Your task to perform on an android device: Open notification settings Image 0: 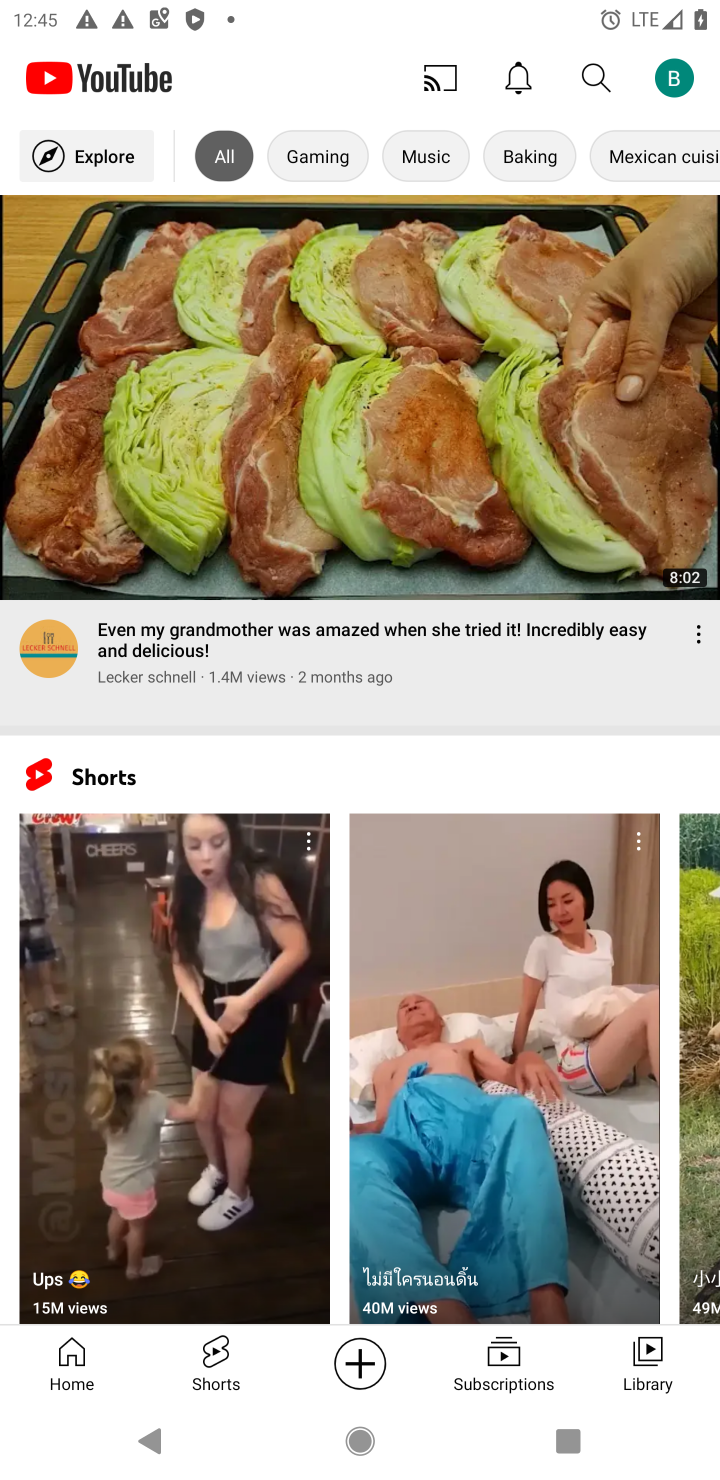
Step 0: press home button
Your task to perform on an android device: Open notification settings Image 1: 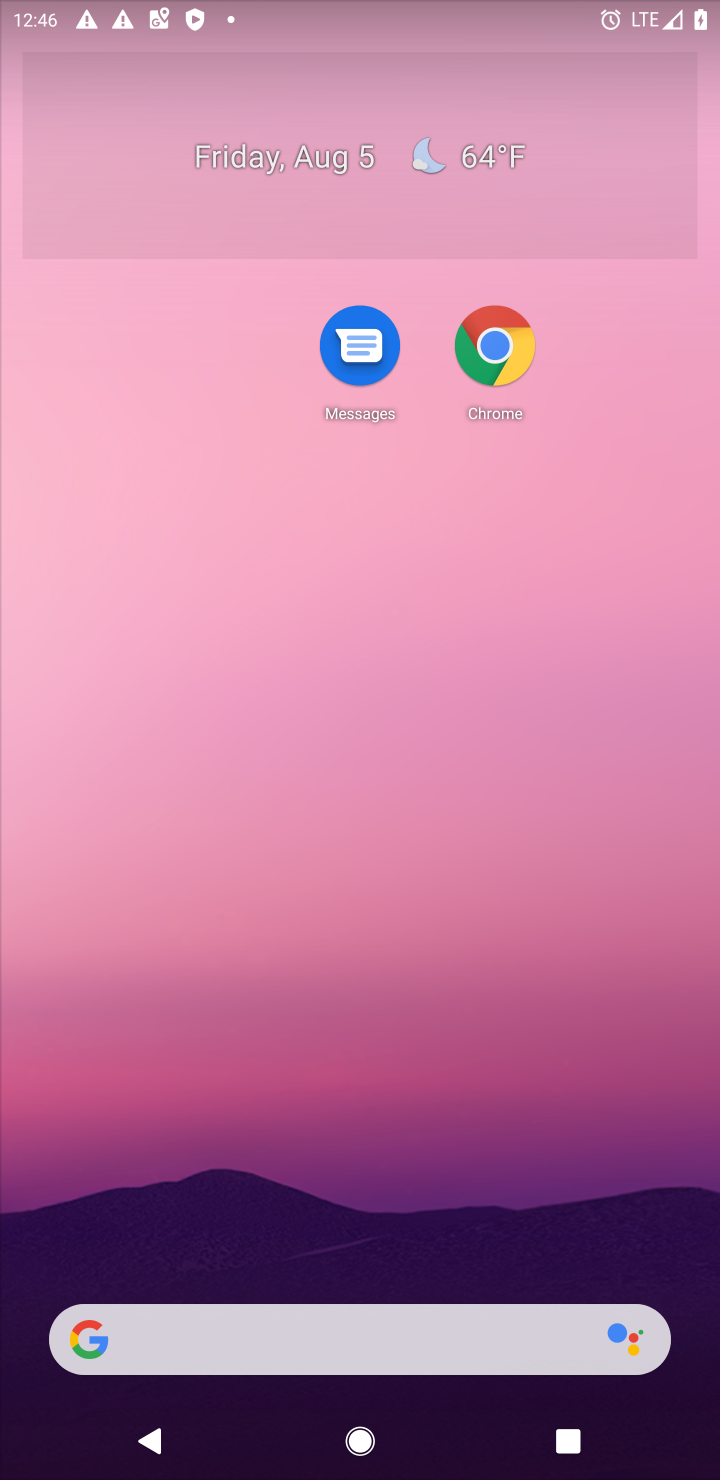
Step 1: drag from (469, 1049) to (426, 48)
Your task to perform on an android device: Open notification settings Image 2: 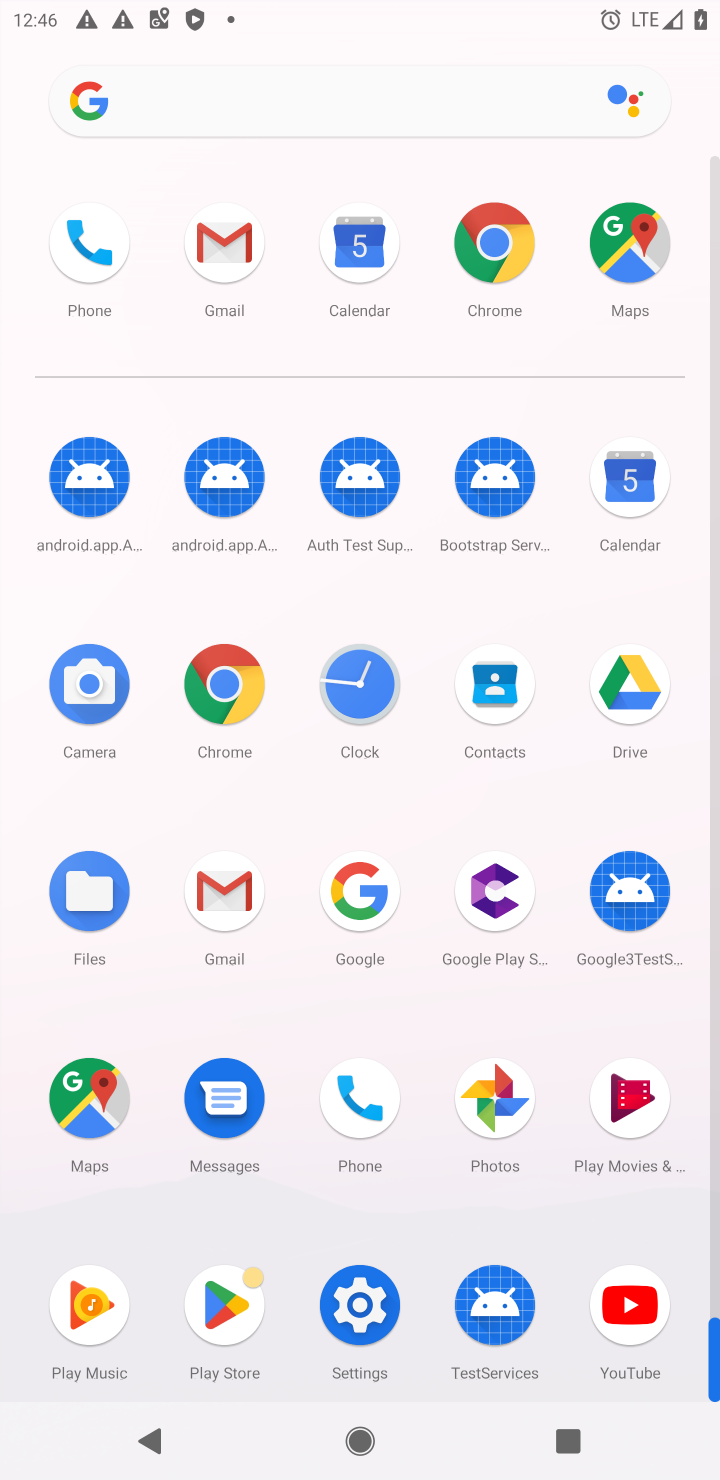
Step 2: click (356, 1311)
Your task to perform on an android device: Open notification settings Image 3: 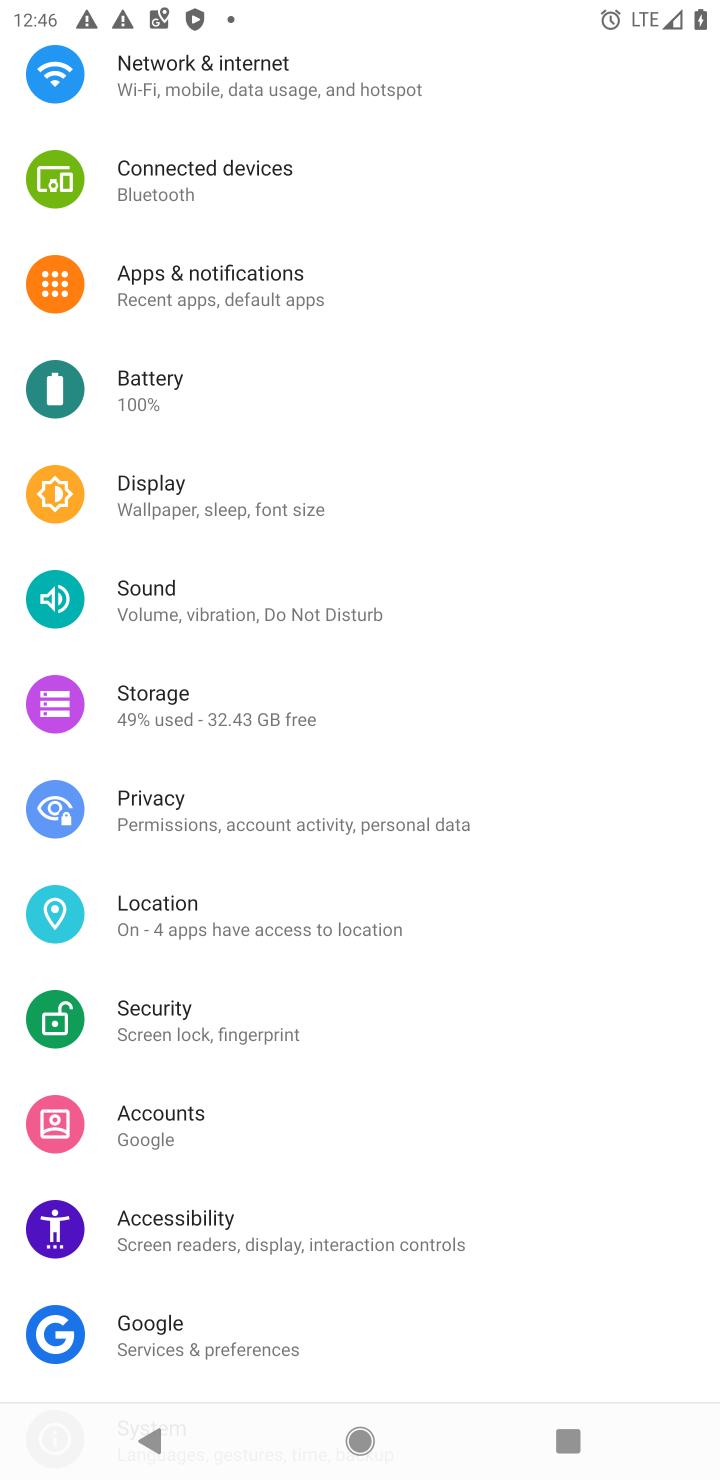
Step 3: click (276, 299)
Your task to perform on an android device: Open notification settings Image 4: 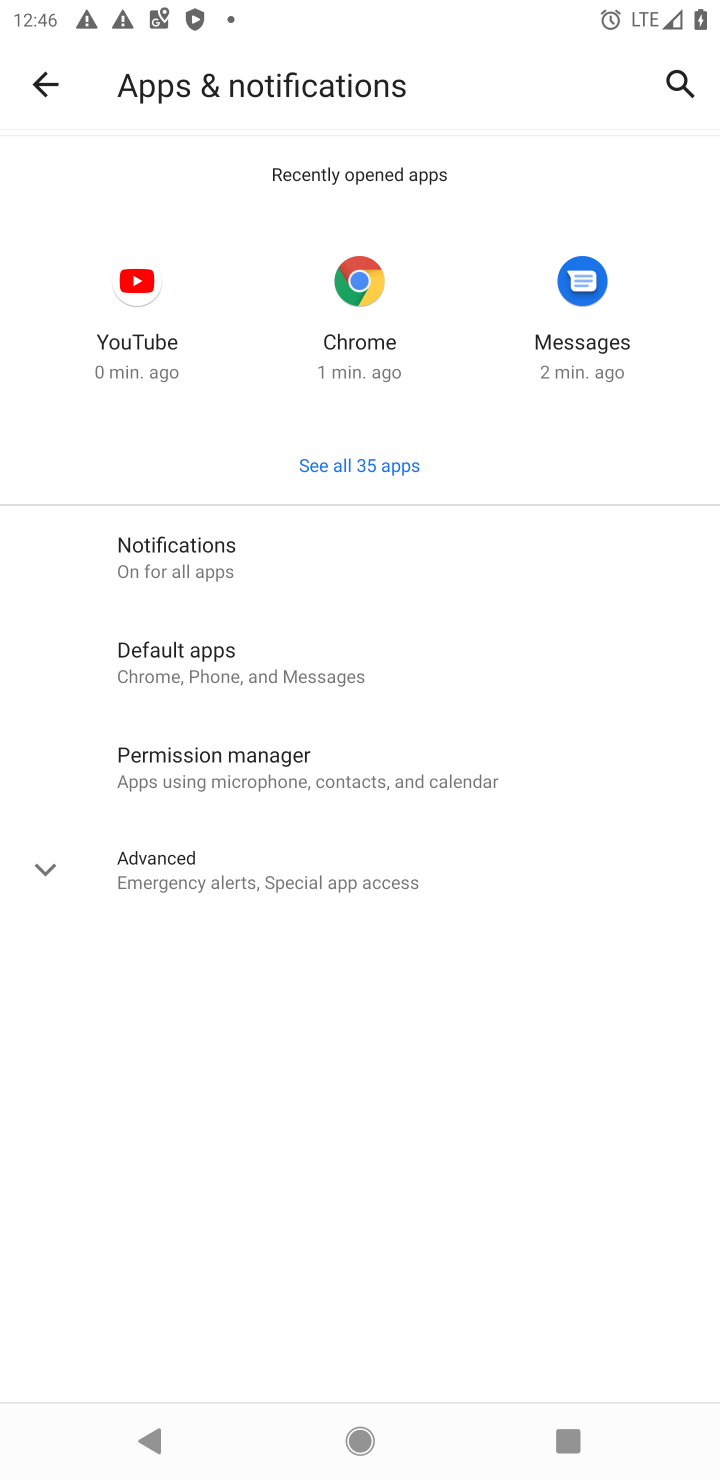
Step 4: click (174, 552)
Your task to perform on an android device: Open notification settings Image 5: 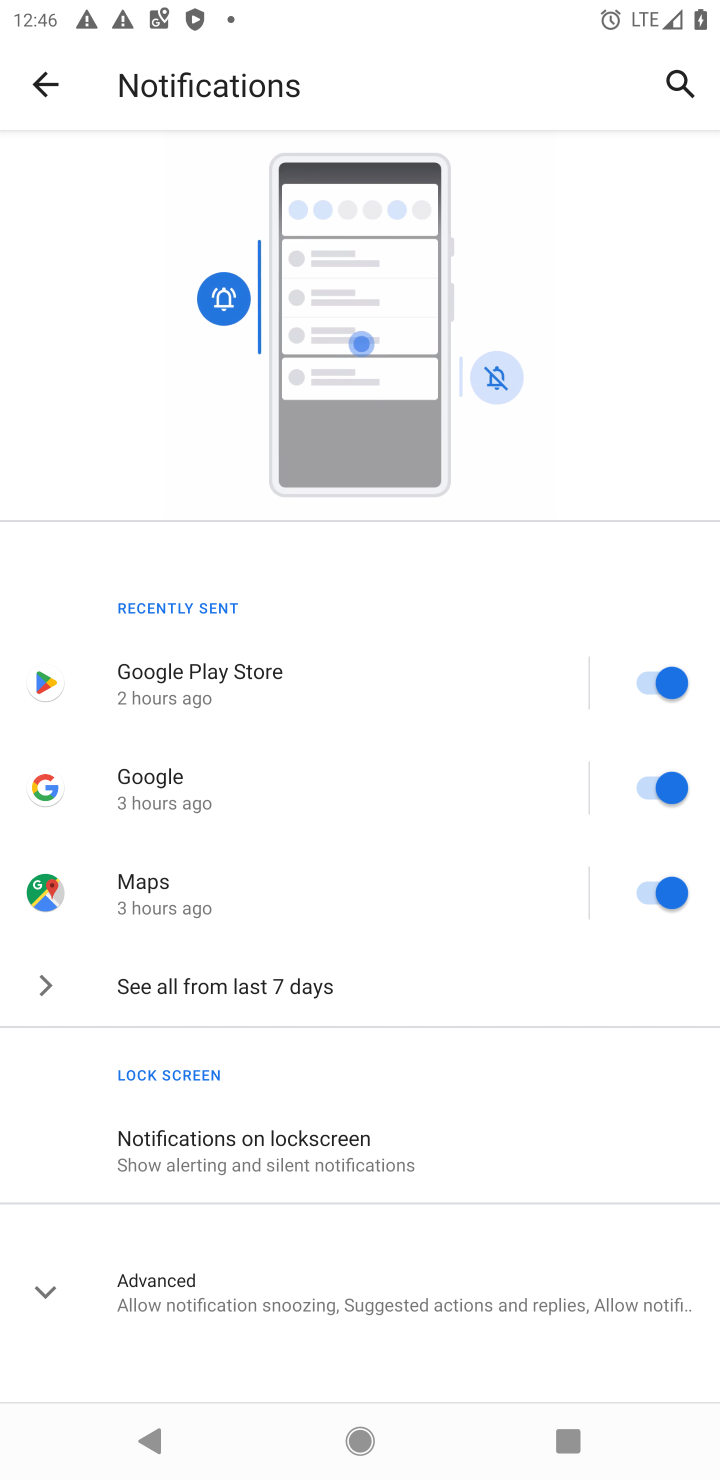
Step 5: click (248, 528)
Your task to perform on an android device: Open notification settings Image 6: 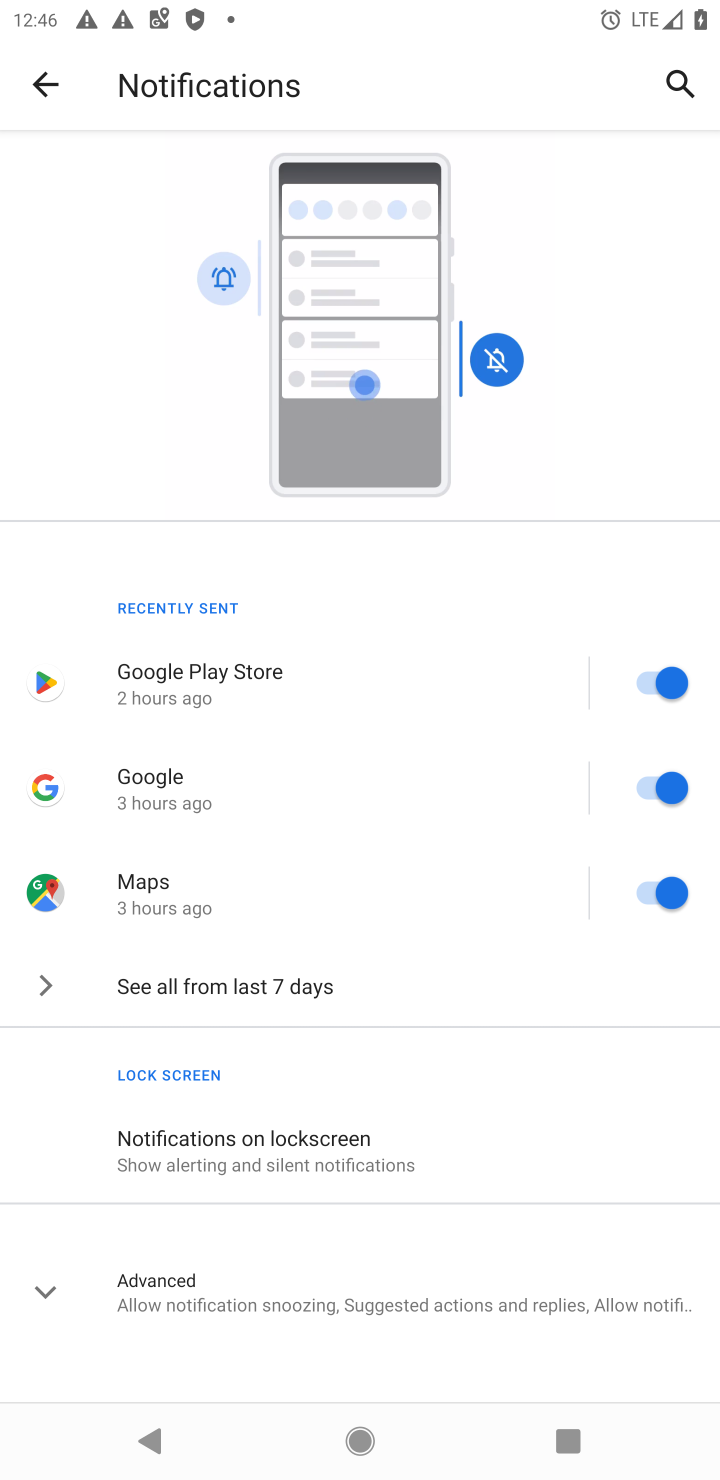
Step 6: task complete